Your task to perform on an android device: Show the shopping cart on newegg. Add "lg ultragear" to the cart on newegg, then select checkout. Image 0: 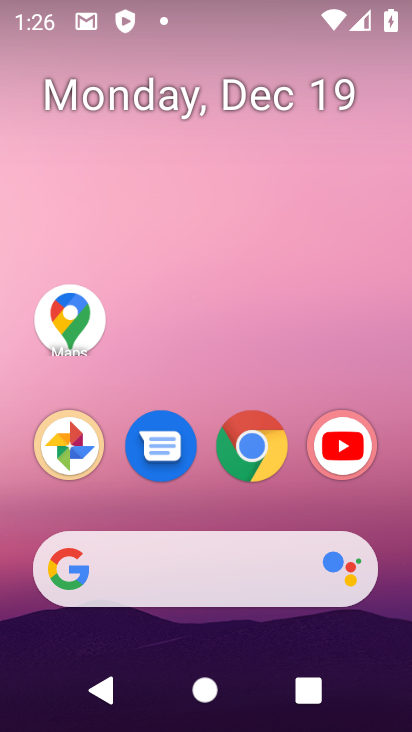
Step 0: click (275, 467)
Your task to perform on an android device: Show the shopping cart on newegg. Add "lg ultragear" to the cart on newegg, then select checkout. Image 1: 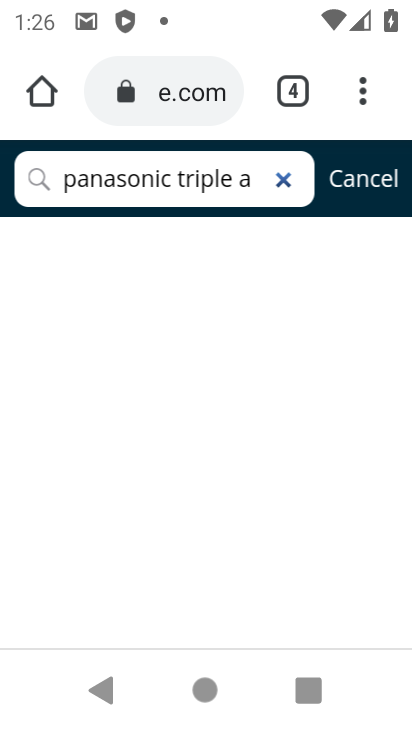
Step 1: click (162, 94)
Your task to perform on an android device: Show the shopping cart on newegg. Add "lg ultragear" to the cart on newegg, then select checkout. Image 2: 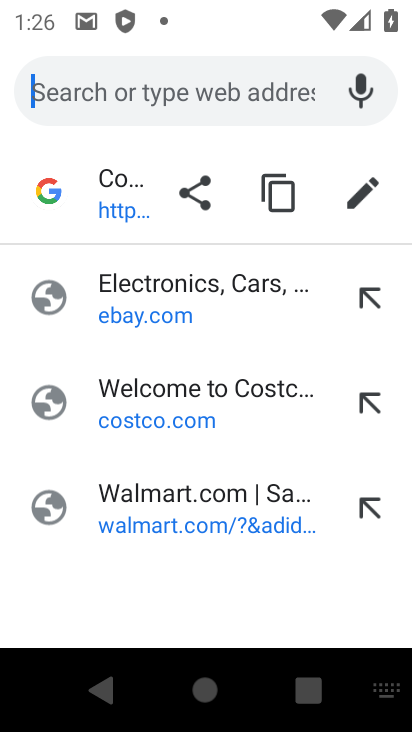
Step 2: type "newegg"
Your task to perform on an android device: Show the shopping cart on newegg. Add "lg ultragear" to the cart on newegg, then select checkout. Image 3: 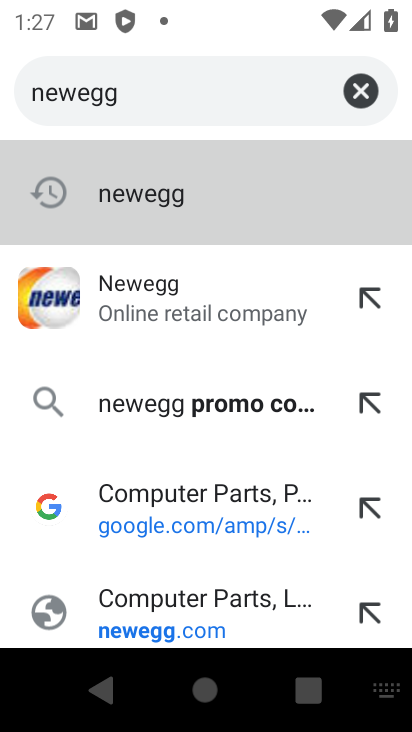
Step 3: click (185, 311)
Your task to perform on an android device: Show the shopping cart on newegg. Add "lg ultragear" to the cart on newegg, then select checkout. Image 4: 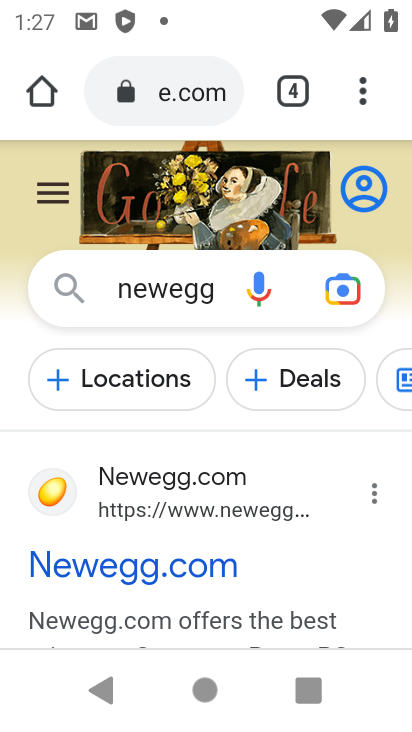
Step 4: click (242, 560)
Your task to perform on an android device: Show the shopping cart on newegg. Add "lg ultragear" to the cart on newegg, then select checkout. Image 5: 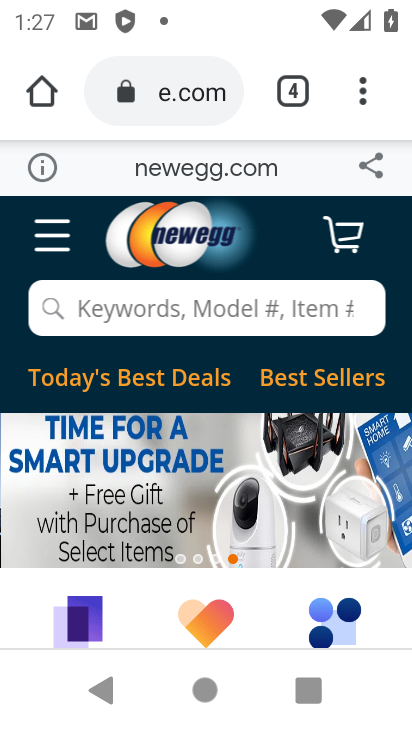
Step 5: click (118, 300)
Your task to perform on an android device: Show the shopping cart on newegg. Add "lg ultragear" to the cart on newegg, then select checkout. Image 6: 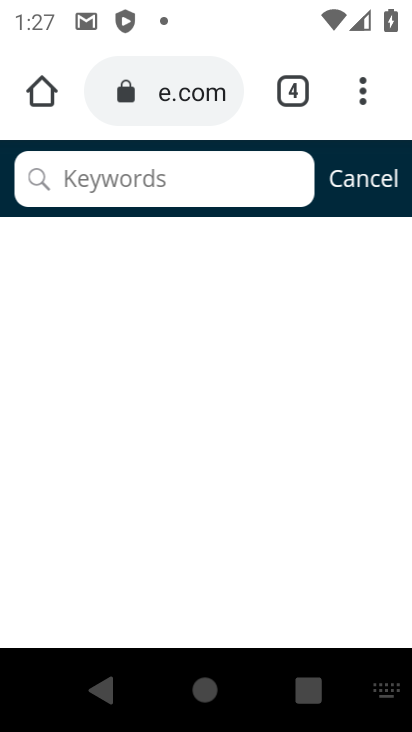
Step 6: type "lg ultragear"
Your task to perform on an android device: Show the shopping cart on newegg. Add "lg ultragear" to the cart on newegg, then select checkout. Image 7: 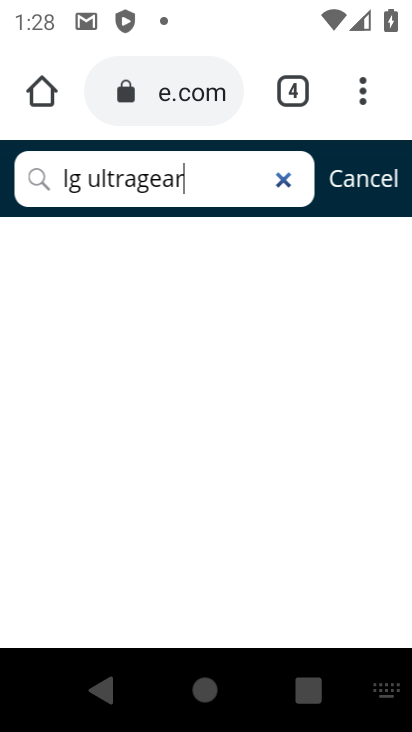
Step 7: task complete